Your task to perform on an android device: stop showing notifications on the lock screen Image 0: 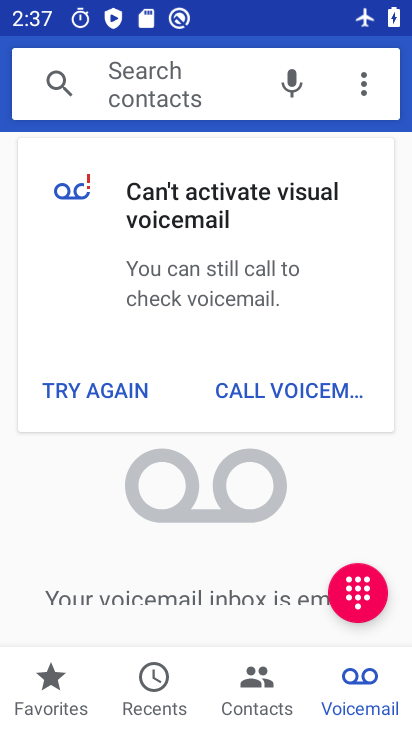
Step 0: drag from (237, 613) to (239, 11)
Your task to perform on an android device: stop showing notifications on the lock screen Image 1: 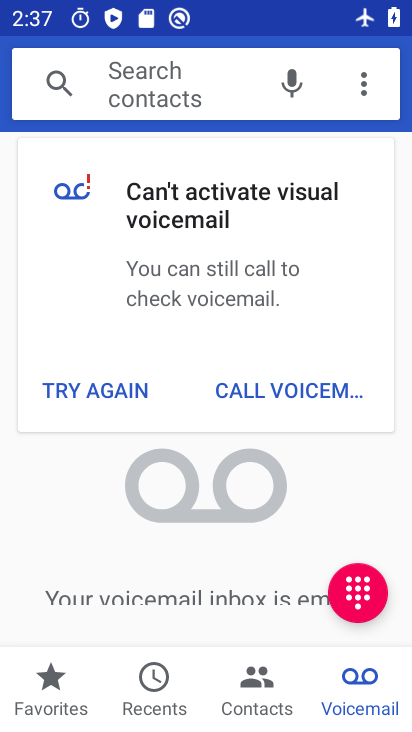
Step 1: press home button
Your task to perform on an android device: stop showing notifications on the lock screen Image 2: 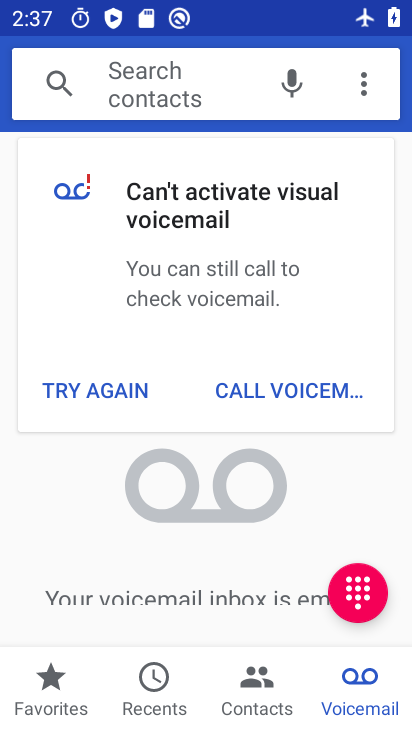
Step 2: drag from (239, 11) to (382, 691)
Your task to perform on an android device: stop showing notifications on the lock screen Image 3: 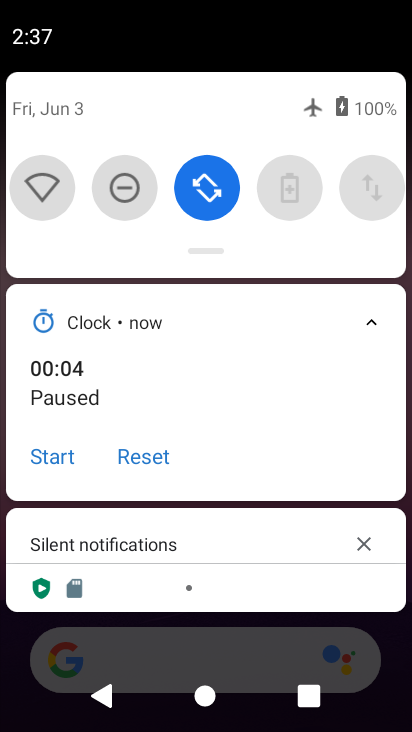
Step 3: drag from (218, 638) to (179, 1)
Your task to perform on an android device: stop showing notifications on the lock screen Image 4: 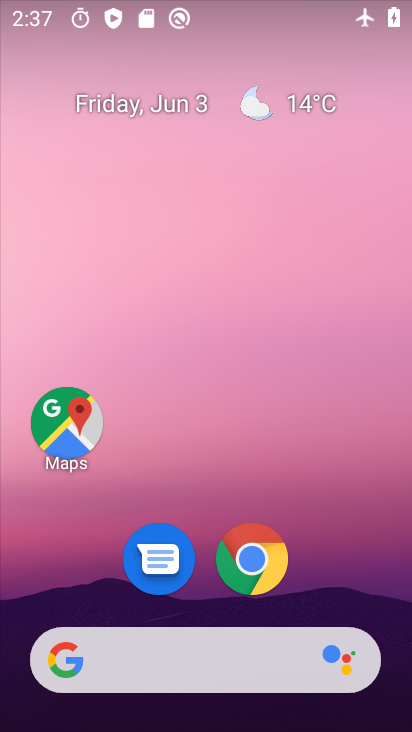
Step 4: drag from (175, 607) to (122, 6)
Your task to perform on an android device: stop showing notifications on the lock screen Image 5: 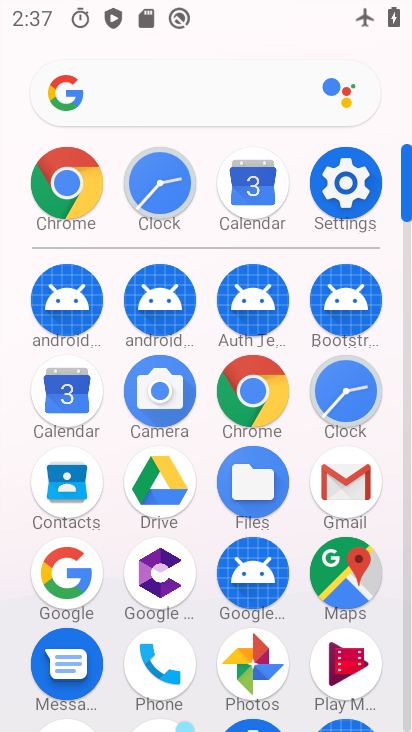
Step 5: click (365, 172)
Your task to perform on an android device: stop showing notifications on the lock screen Image 6: 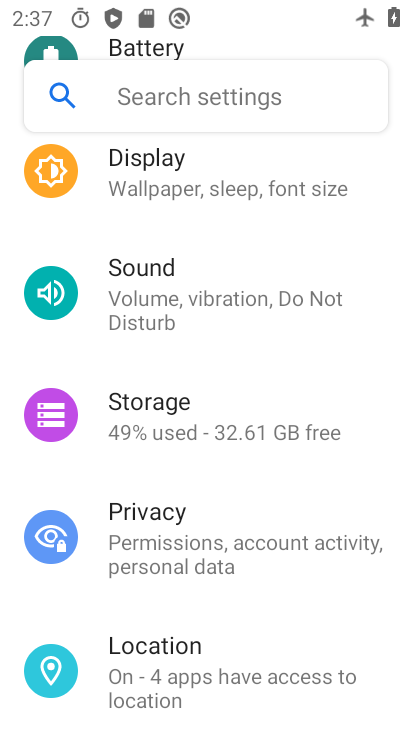
Step 6: drag from (173, 658) to (98, 162)
Your task to perform on an android device: stop showing notifications on the lock screen Image 7: 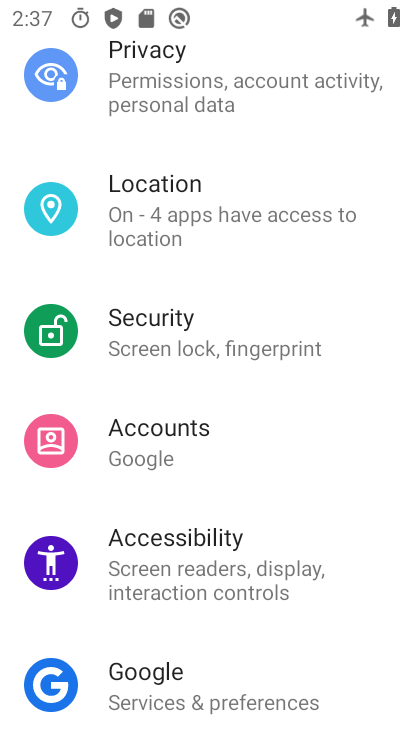
Step 7: drag from (79, 559) to (88, 105)
Your task to perform on an android device: stop showing notifications on the lock screen Image 8: 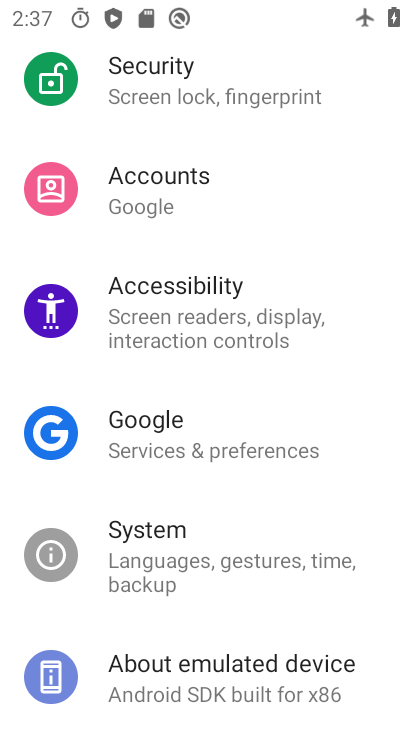
Step 8: drag from (211, 312) to (202, 631)
Your task to perform on an android device: stop showing notifications on the lock screen Image 9: 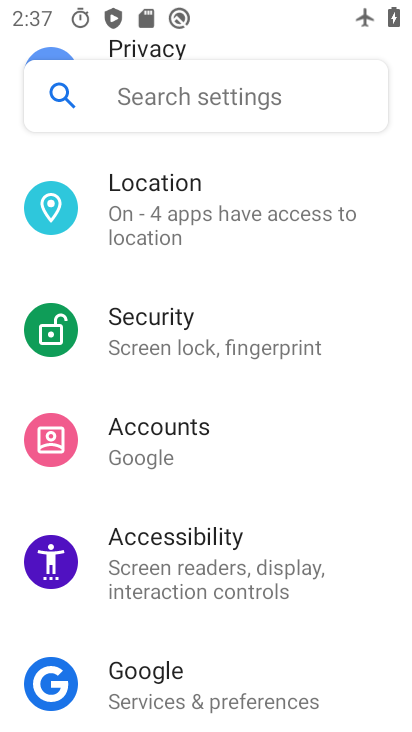
Step 9: drag from (225, 199) to (168, 705)
Your task to perform on an android device: stop showing notifications on the lock screen Image 10: 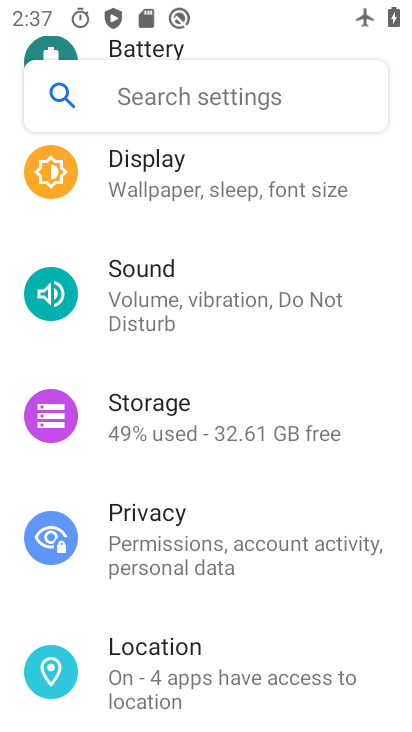
Step 10: drag from (223, 236) to (195, 672)
Your task to perform on an android device: stop showing notifications on the lock screen Image 11: 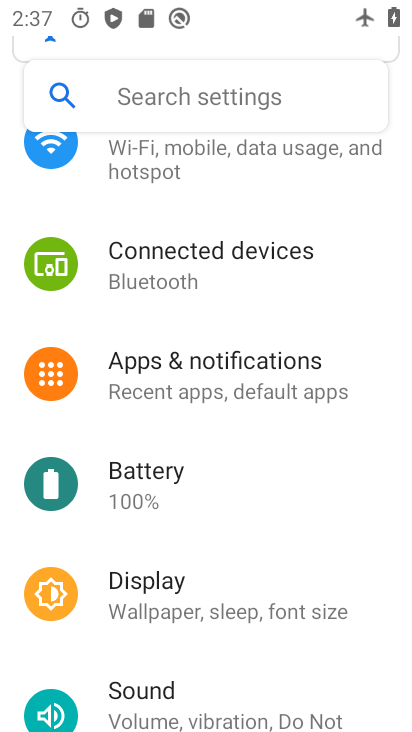
Step 11: click (226, 382)
Your task to perform on an android device: stop showing notifications on the lock screen Image 12: 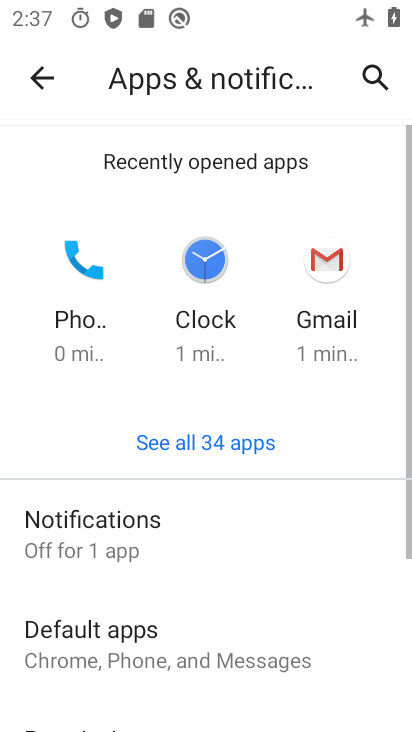
Step 12: click (168, 533)
Your task to perform on an android device: stop showing notifications on the lock screen Image 13: 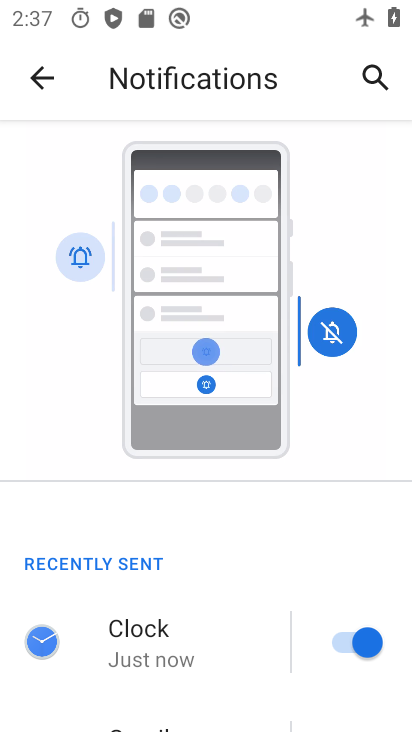
Step 13: drag from (141, 642) to (144, 48)
Your task to perform on an android device: stop showing notifications on the lock screen Image 14: 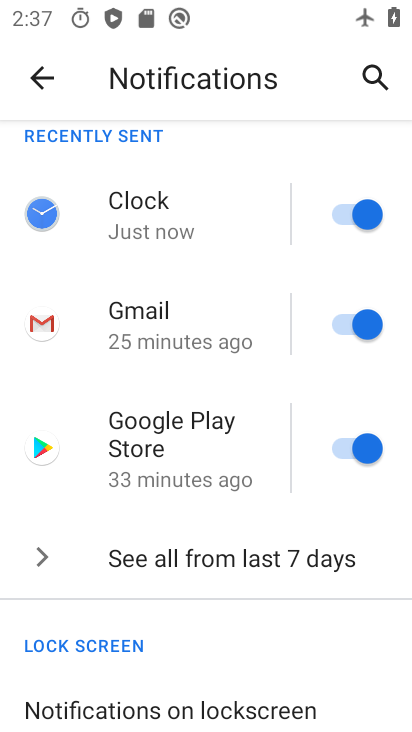
Step 14: click (199, 710)
Your task to perform on an android device: stop showing notifications on the lock screen Image 15: 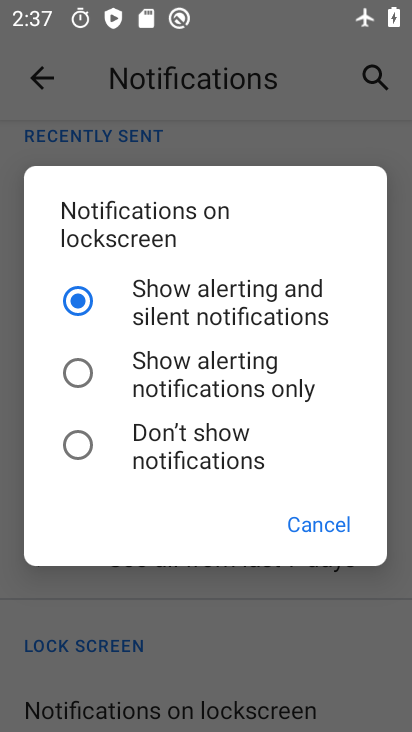
Step 15: click (77, 455)
Your task to perform on an android device: stop showing notifications on the lock screen Image 16: 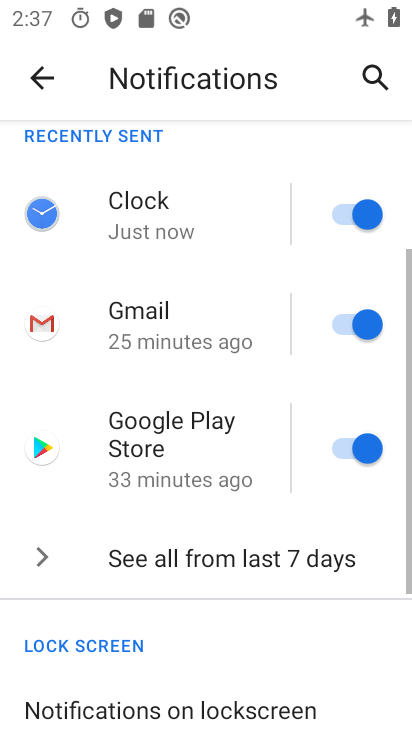
Step 16: task complete